Your task to perform on an android device: Go to CNN.com Image 0: 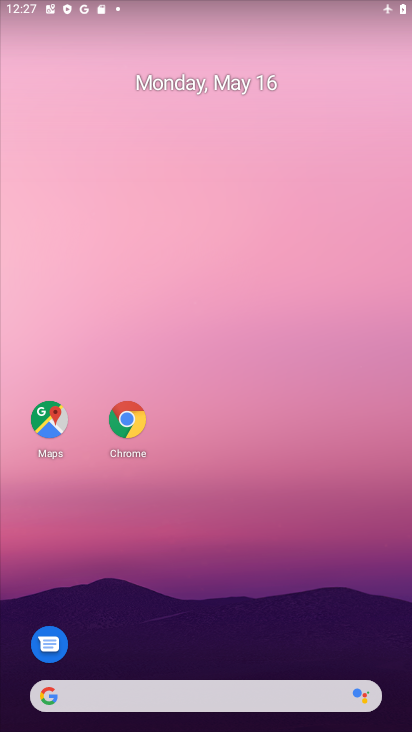
Step 0: click (199, 692)
Your task to perform on an android device: Go to CNN.com Image 1: 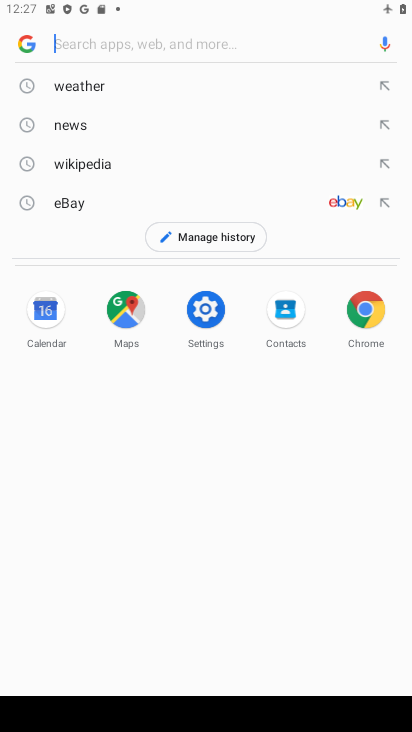
Step 1: type "cnn.com"
Your task to perform on an android device: Go to CNN.com Image 2: 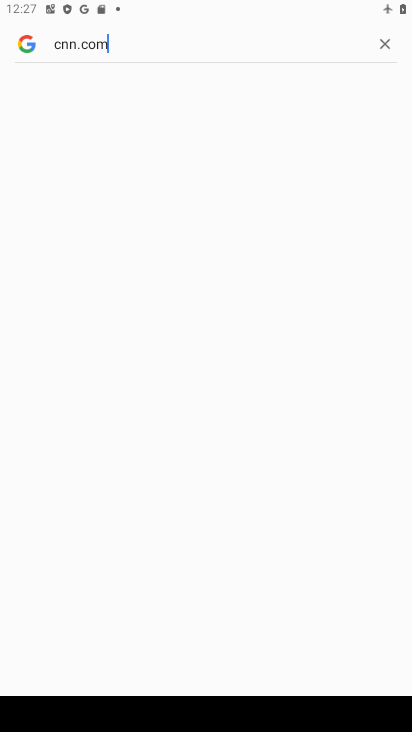
Step 2: task complete